Your task to perform on an android device: allow cookies in the chrome app Image 0: 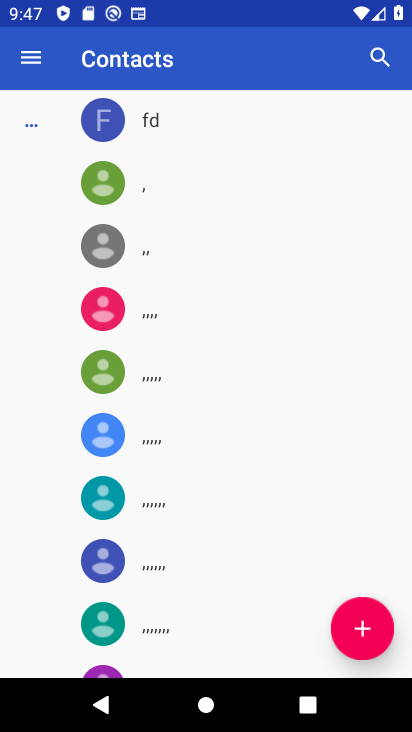
Step 0: press home button
Your task to perform on an android device: allow cookies in the chrome app Image 1: 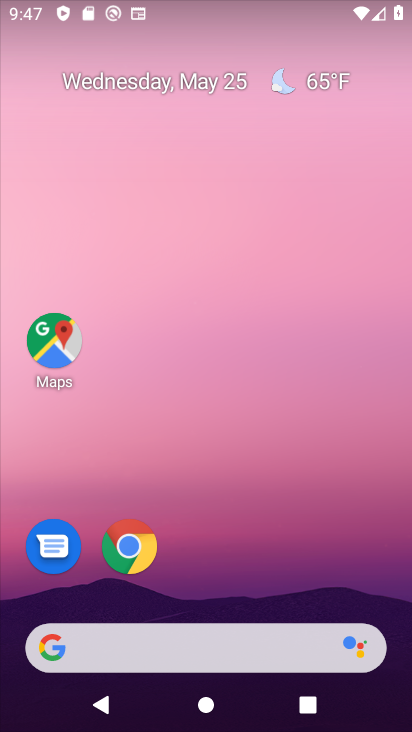
Step 1: drag from (264, 556) to (230, 3)
Your task to perform on an android device: allow cookies in the chrome app Image 2: 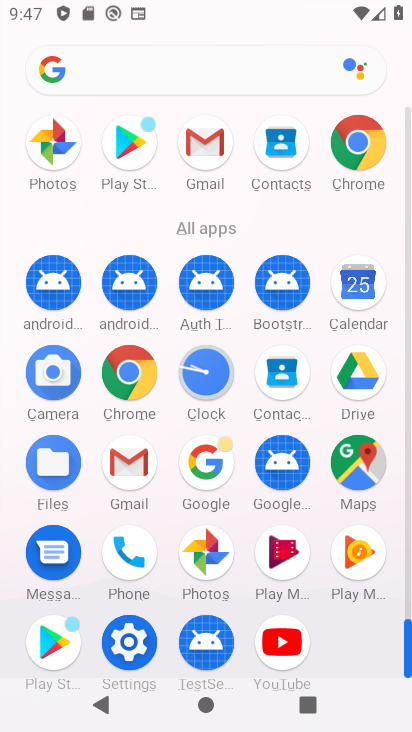
Step 2: click (358, 136)
Your task to perform on an android device: allow cookies in the chrome app Image 3: 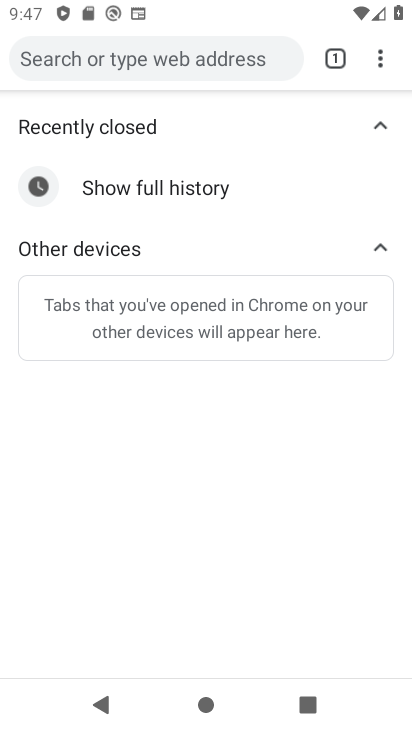
Step 3: drag from (374, 59) to (192, 496)
Your task to perform on an android device: allow cookies in the chrome app Image 4: 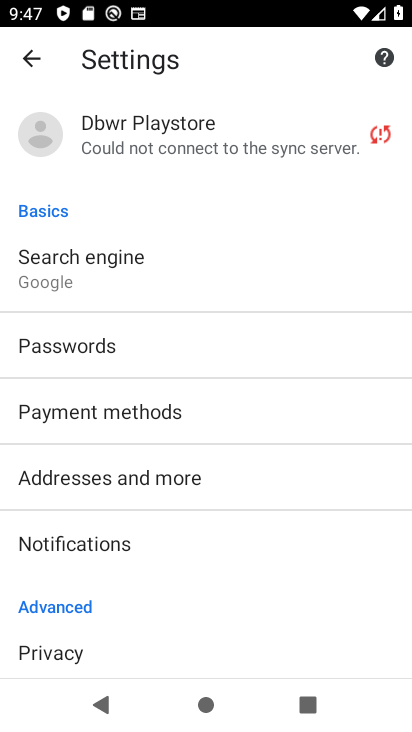
Step 4: drag from (272, 624) to (238, 209)
Your task to perform on an android device: allow cookies in the chrome app Image 5: 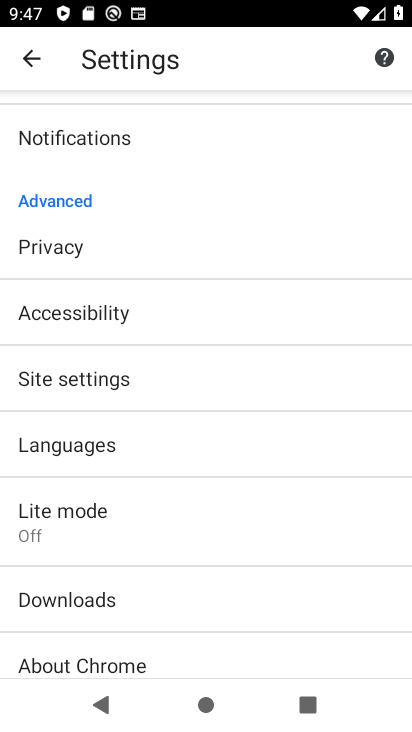
Step 5: click (103, 383)
Your task to perform on an android device: allow cookies in the chrome app Image 6: 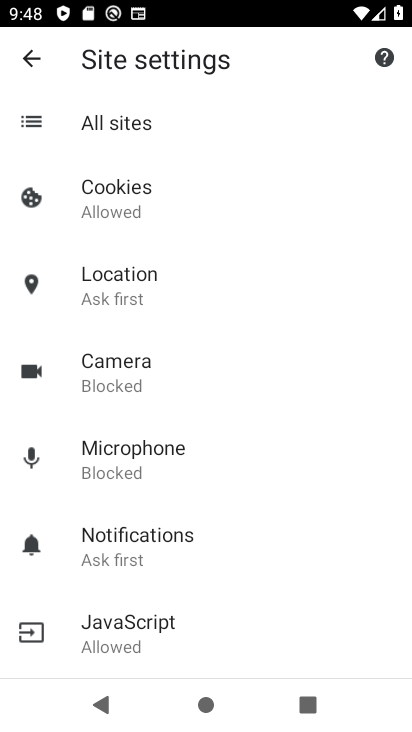
Step 6: click (150, 202)
Your task to perform on an android device: allow cookies in the chrome app Image 7: 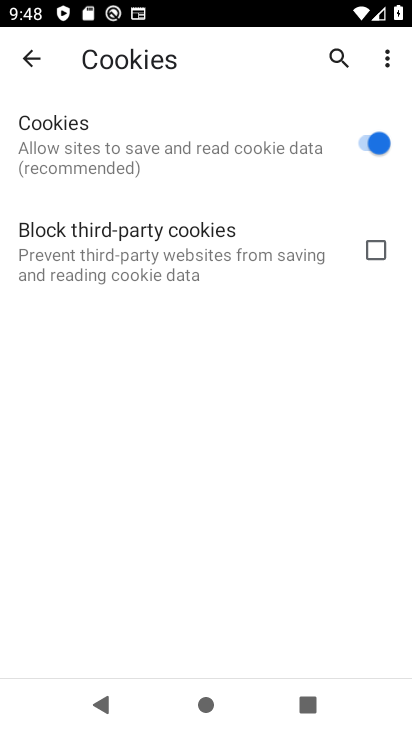
Step 7: task complete